Your task to perform on an android device: see tabs open on other devices in the chrome app Image 0: 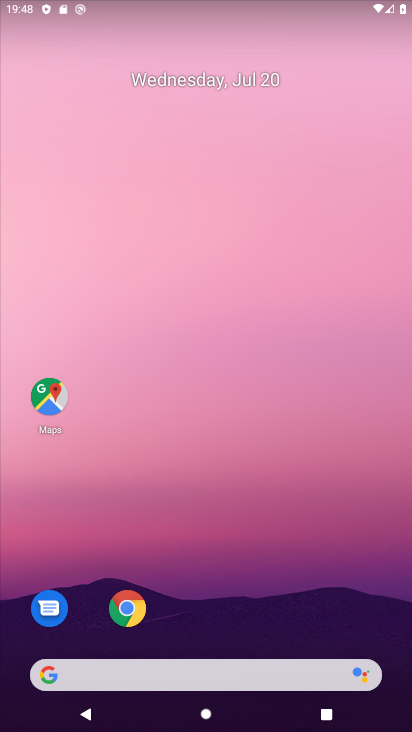
Step 0: drag from (166, 645) to (157, 107)
Your task to perform on an android device: see tabs open on other devices in the chrome app Image 1: 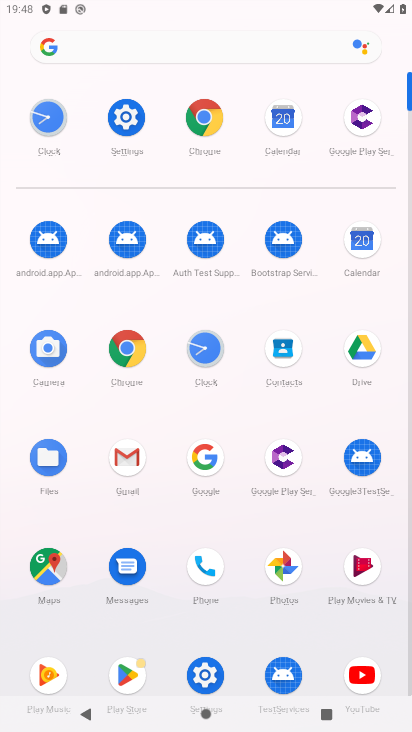
Step 1: click (200, 113)
Your task to perform on an android device: see tabs open on other devices in the chrome app Image 2: 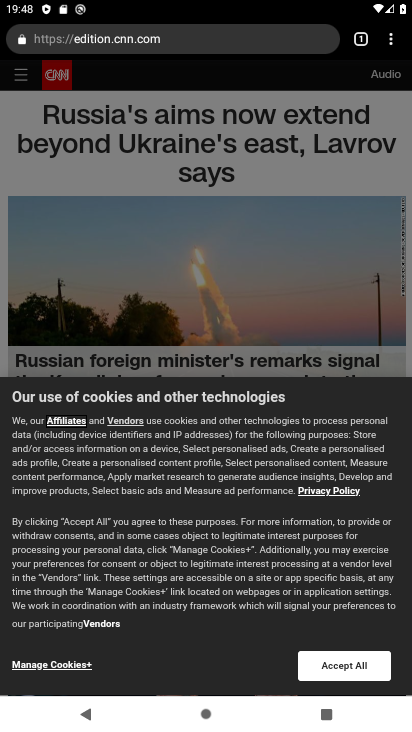
Step 2: task complete